Your task to perform on an android device: turn off sleep mode Image 0: 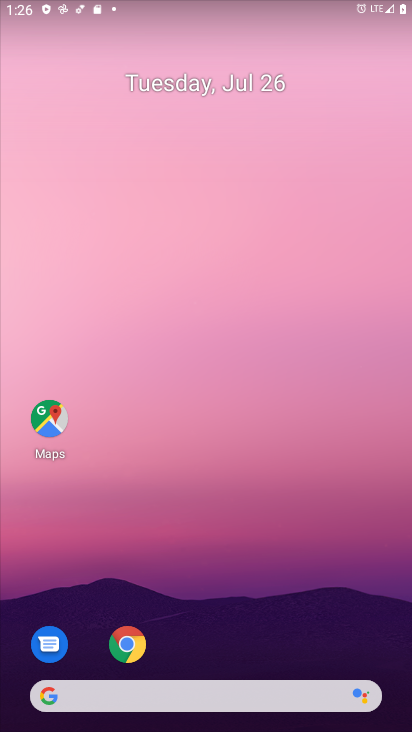
Step 0: drag from (267, 718) to (277, 19)
Your task to perform on an android device: turn off sleep mode Image 1: 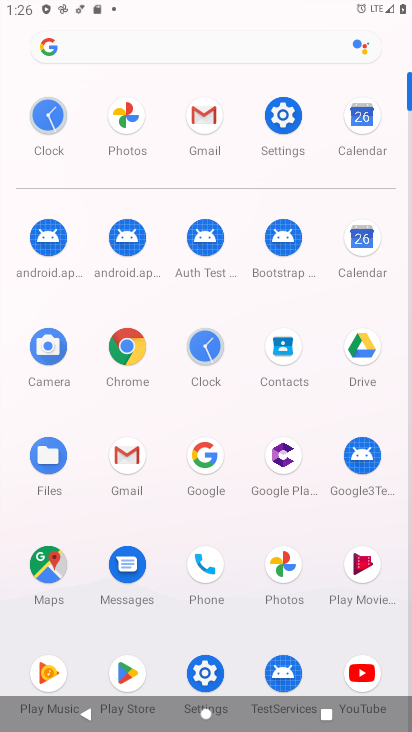
Step 1: click (297, 112)
Your task to perform on an android device: turn off sleep mode Image 2: 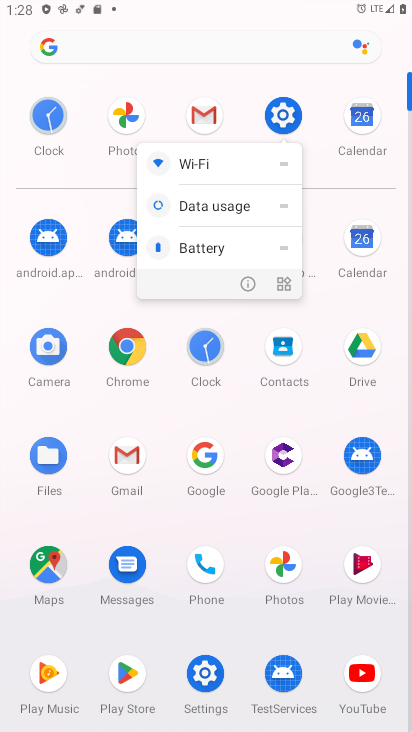
Step 2: click (304, 112)
Your task to perform on an android device: turn off sleep mode Image 3: 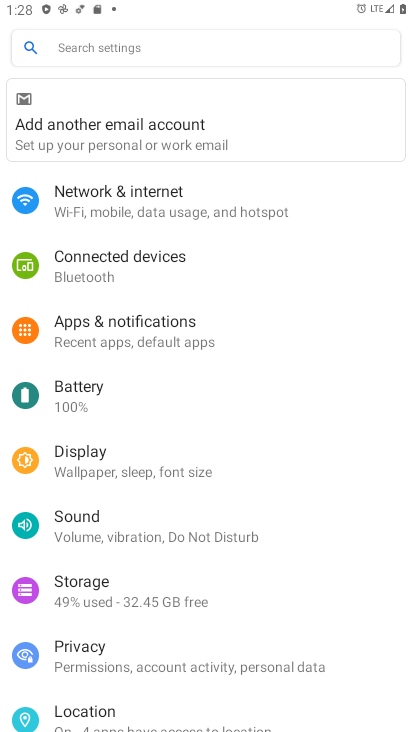
Step 3: click (225, 472)
Your task to perform on an android device: turn off sleep mode Image 4: 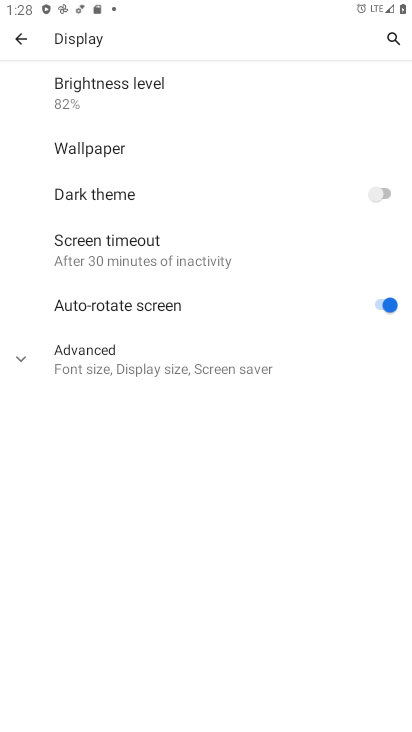
Step 4: task complete